Your task to perform on an android device: turn on bluetooth scan Image 0: 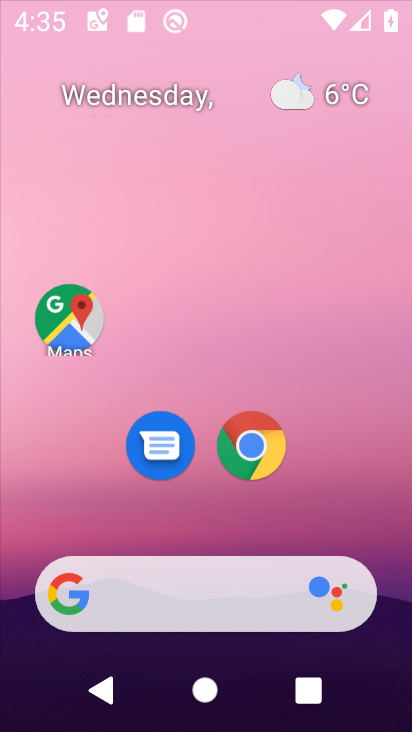
Step 0: click (259, 437)
Your task to perform on an android device: turn on bluetooth scan Image 1: 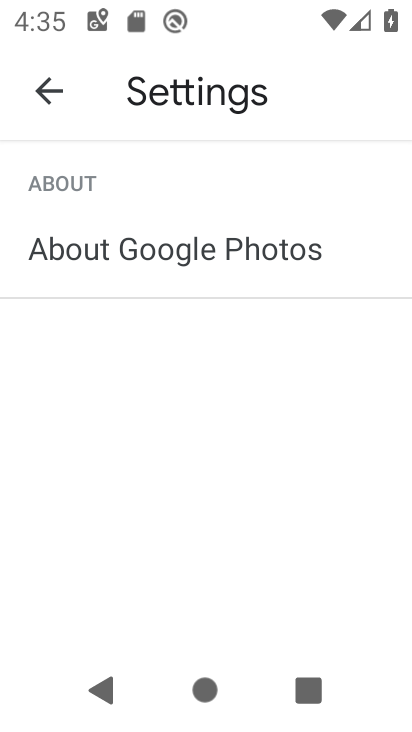
Step 1: press home button
Your task to perform on an android device: turn on bluetooth scan Image 2: 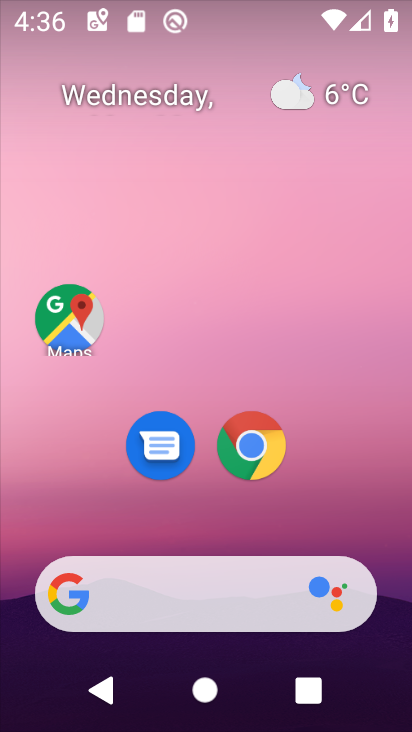
Step 2: drag from (259, 523) to (342, 0)
Your task to perform on an android device: turn on bluetooth scan Image 3: 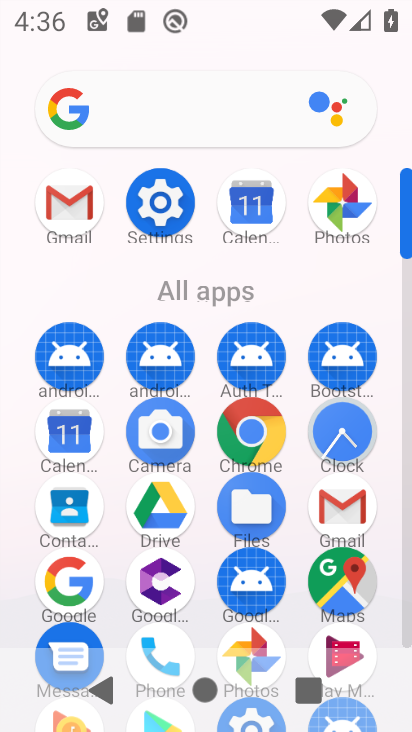
Step 3: click (148, 202)
Your task to perform on an android device: turn on bluetooth scan Image 4: 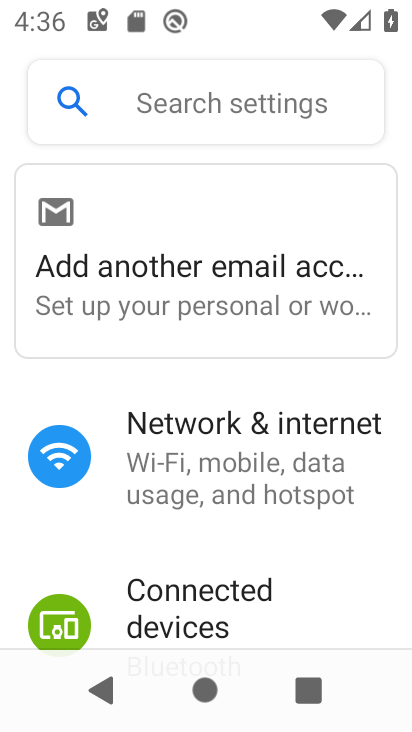
Step 4: drag from (249, 516) to (294, 149)
Your task to perform on an android device: turn on bluetooth scan Image 5: 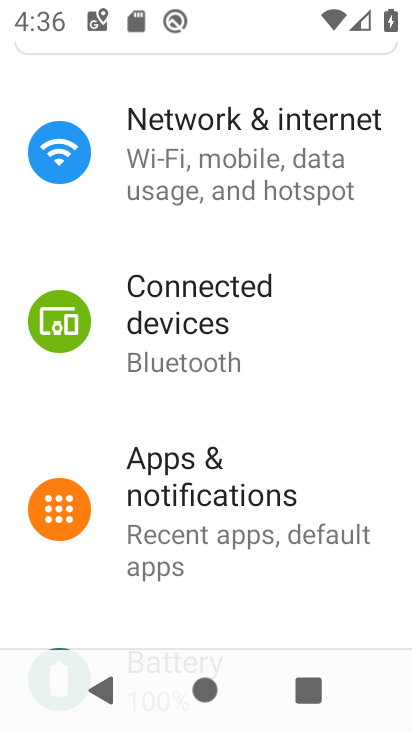
Step 5: drag from (267, 528) to (275, 181)
Your task to perform on an android device: turn on bluetooth scan Image 6: 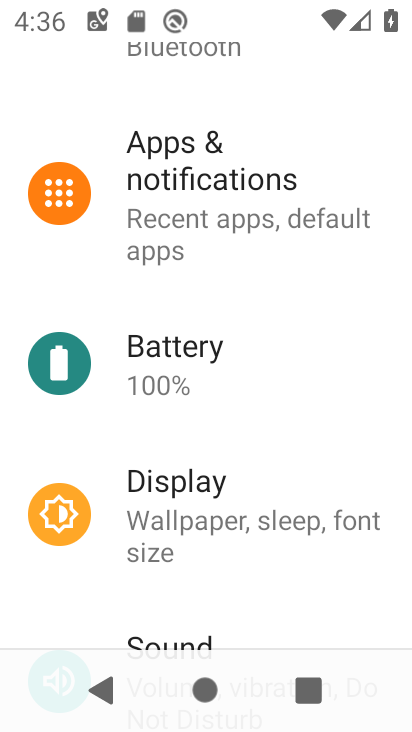
Step 6: drag from (178, 524) to (257, 148)
Your task to perform on an android device: turn on bluetooth scan Image 7: 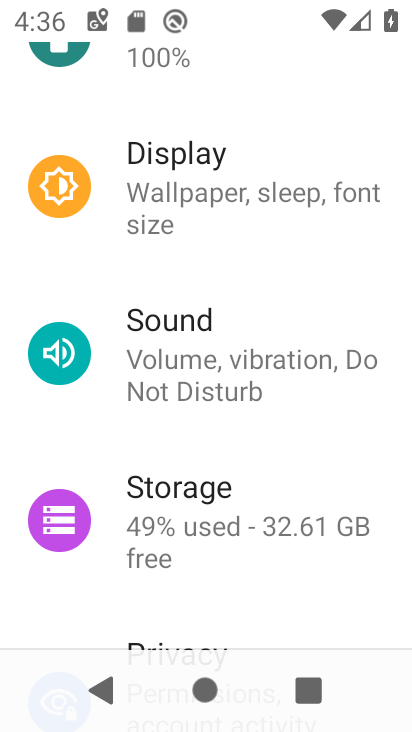
Step 7: drag from (238, 570) to (273, 256)
Your task to perform on an android device: turn on bluetooth scan Image 8: 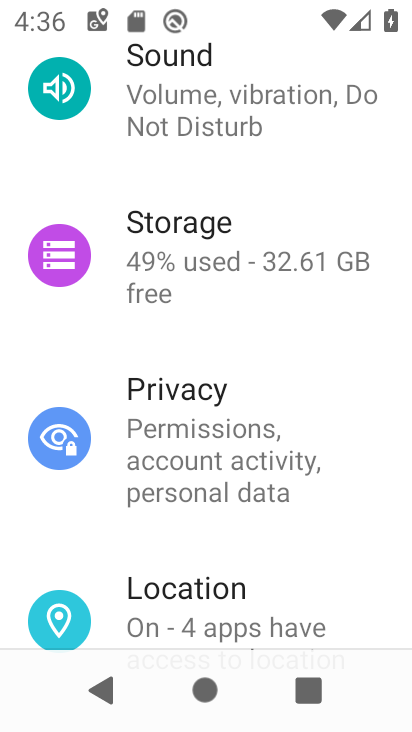
Step 8: drag from (243, 514) to (268, 282)
Your task to perform on an android device: turn on bluetooth scan Image 9: 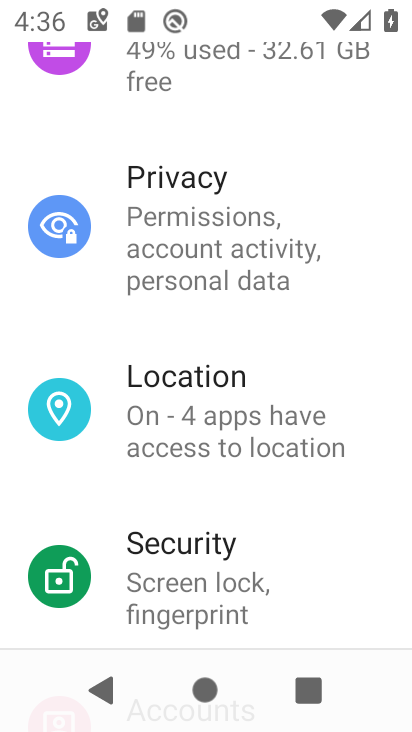
Step 9: click (264, 419)
Your task to perform on an android device: turn on bluetooth scan Image 10: 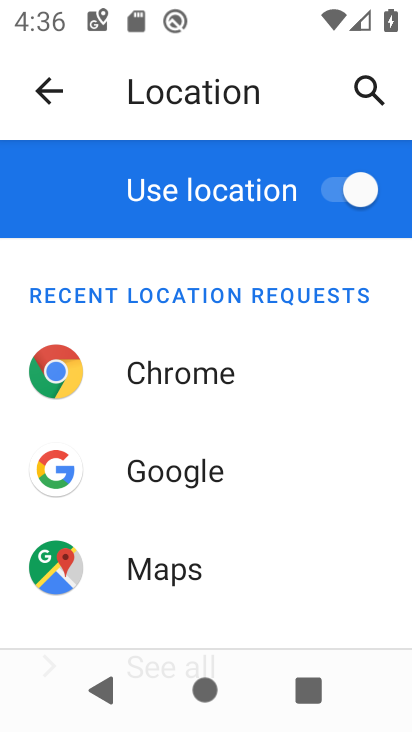
Step 10: drag from (218, 542) to (263, 227)
Your task to perform on an android device: turn on bluetooth scan Image 11: 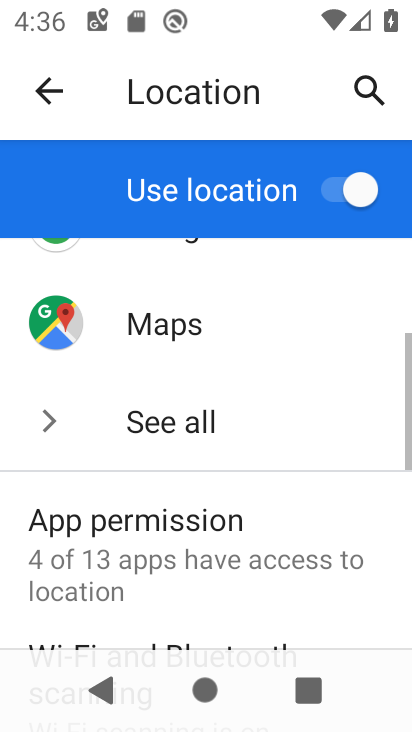
Step 11: drag from (202, 569) to (232, 195)
Your task to perform on an android device: turn on bluetooth scan Image 12: 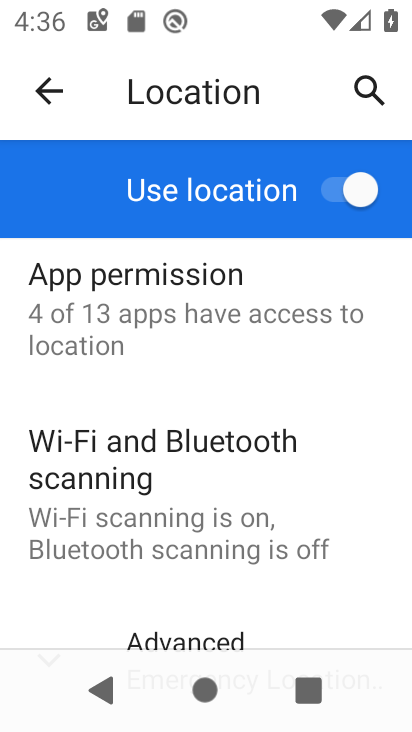
Step 12: click (172, 504)
Your task to perform on an android device: turn on bluetooth scan Image 13: 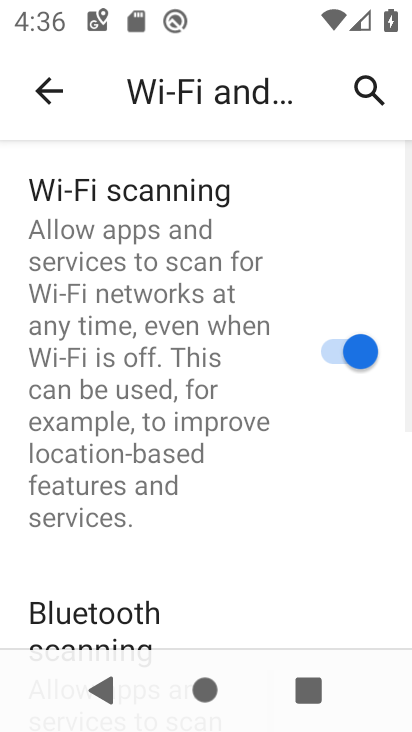
Step 13: drag from (256, 485) to (279, 35)
Your task to perform on an android device: turn on bluetooth scan Image 14: 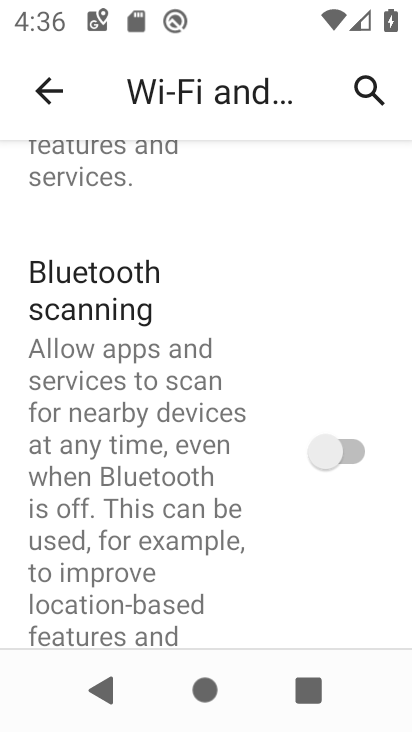
Step 14: click (362, 447)
Your task to perform on an android device: turn on bluetooth scan Image 15: 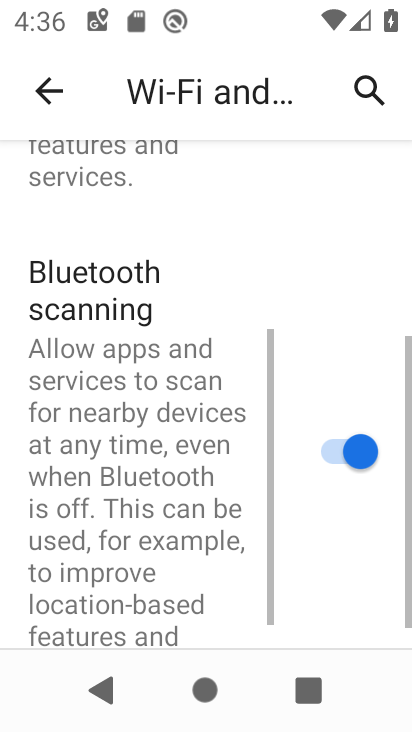
Step 15: task complete